Your task to perform on an android device: toggle notifications settings in the gmail app Image 0: 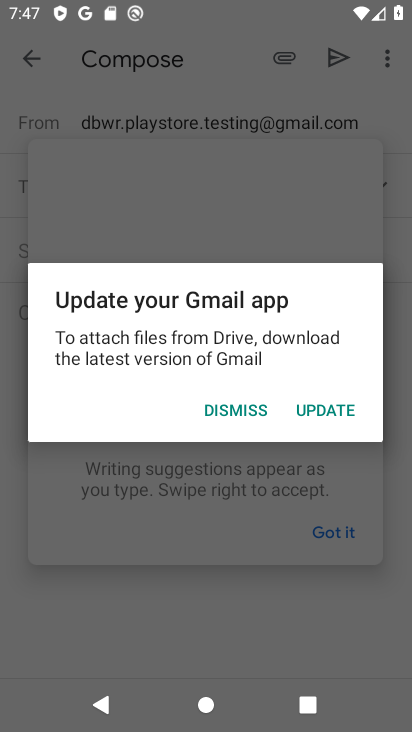
Step 0: press home button
Your task to perform on an android device: toggle notifications settings in the gmail app Image 1: 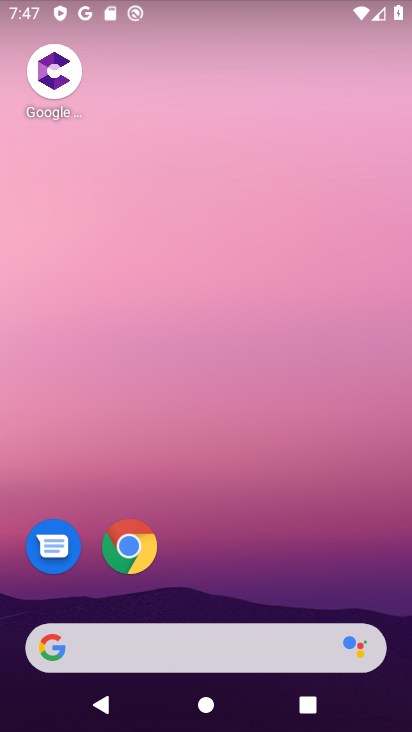
Step 1: drag from (289, 470) to (307, 199)
Your task to perform on an android device: toggle notifications settings in the gmail app Image 2: 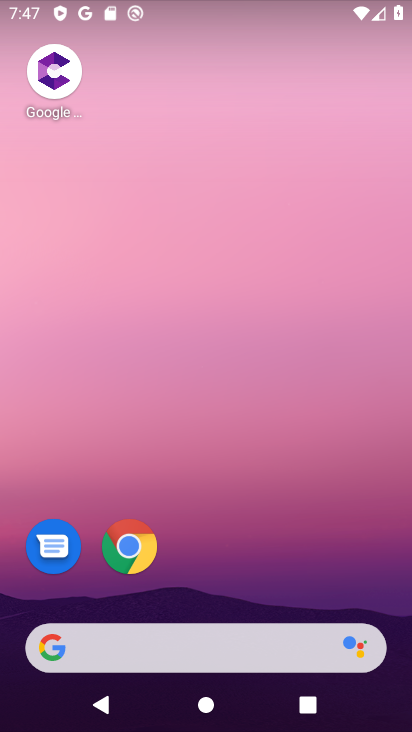
Step 2: drag from (256, 556) to (258, 141)
Your task to perform on an android device: toggle notifications settings in the gmail app Image 3: 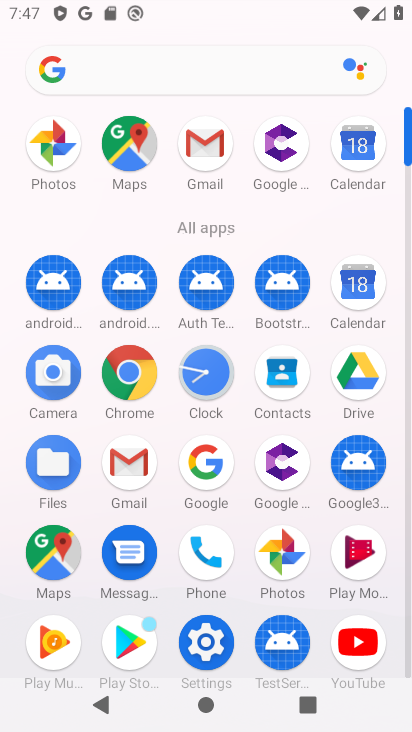
Step 3: click (125, 457)
Your task to perform on an android device: toggle notifications settings in the gmail app Image 4: 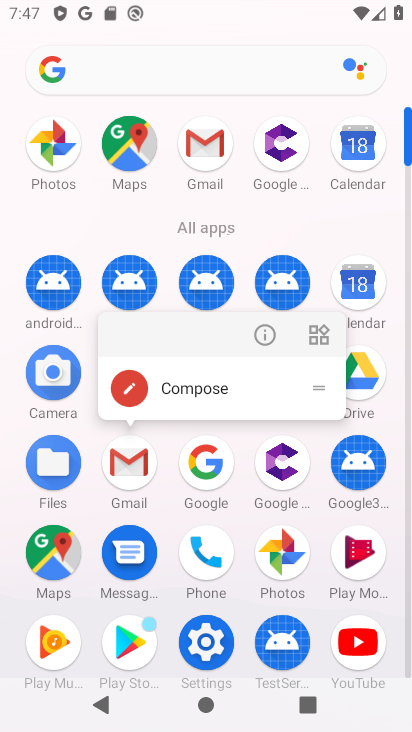
Step 4: click (129, 474)
Your task to perform on an android device: toggle notifications settings in the gmail app Image 5: 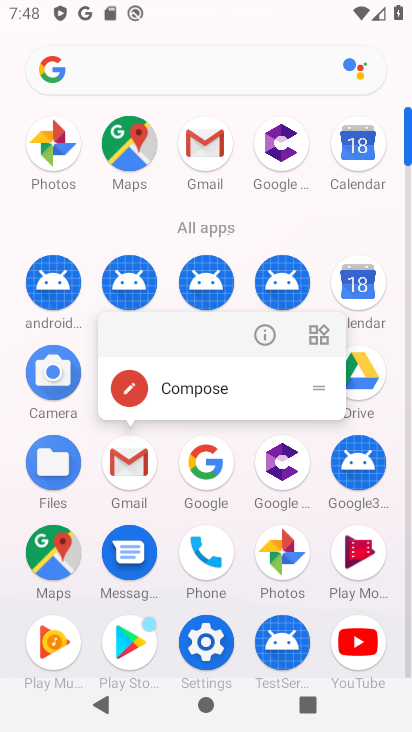
Step 5: click (141, 482)
Your task to perform on an android device: toggle notifications settings in the gmail app Image 6: 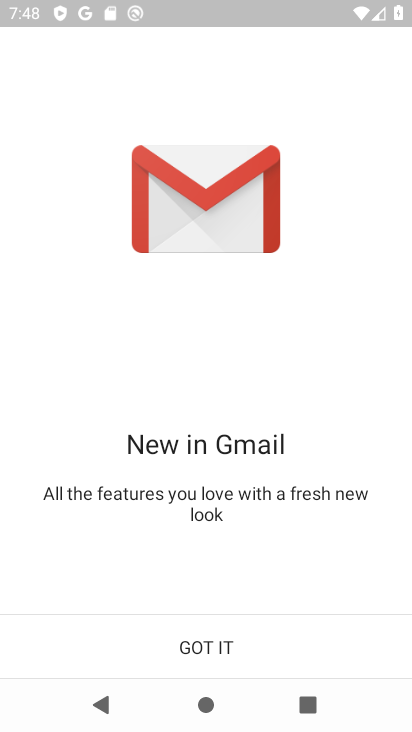
Step 6: click (212, 649)
Your task to perform on an android device: toggle notifications settings in the gmail app Image 7: 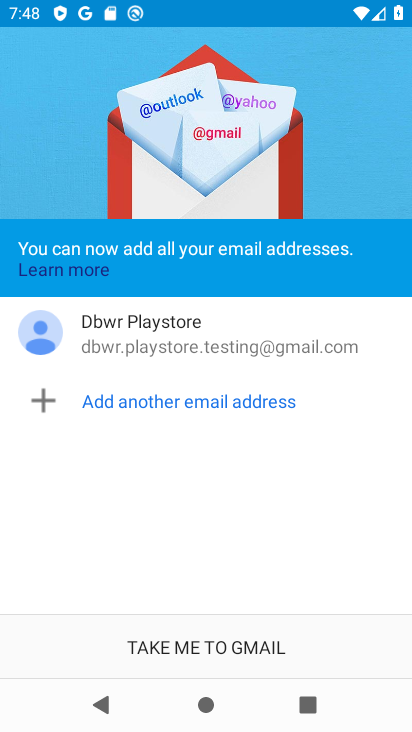
Step 7: click (226, 656)
Your task to perform on an android device: toggle notifications settings in the gmail app Image 8: 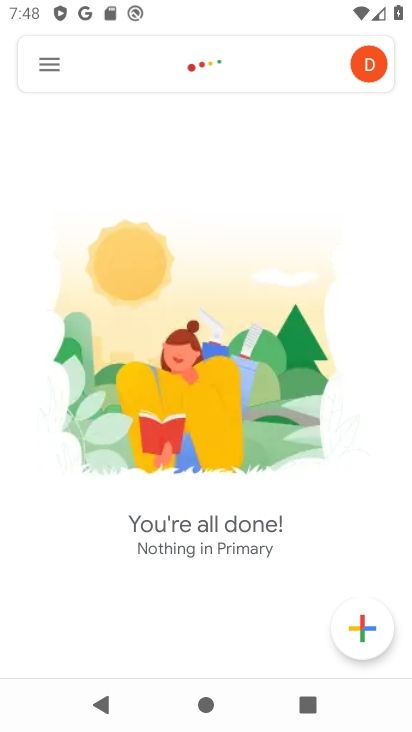
Step 8: click (49, 67)
Your task to perform on an android device: toggle notifications settings in the gmail app Image 9: 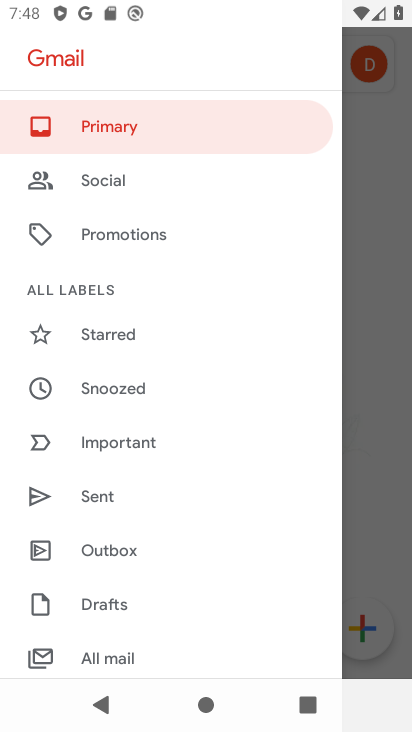
Step 9: drag from (128, 634) to (140, 189)
Your task to perform on an android device: toggle notifications settings in the gmail app Image 10: 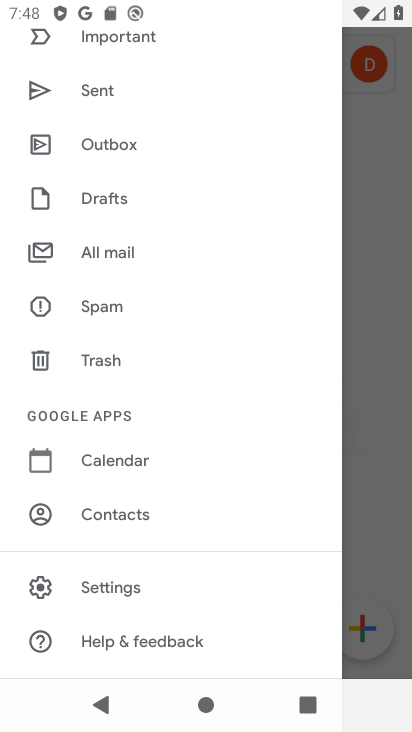
Step 10: click (112, 587)
Your task to perform on an android device: toggle notifications settings in the gmail app Image 11: 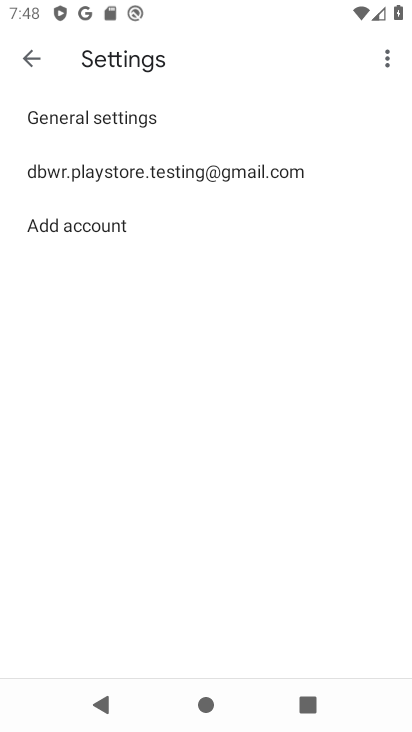
Step 11: click (141, 167)
Your task to perform on an android device: toggle notifications settings in the gmail app Image 12: 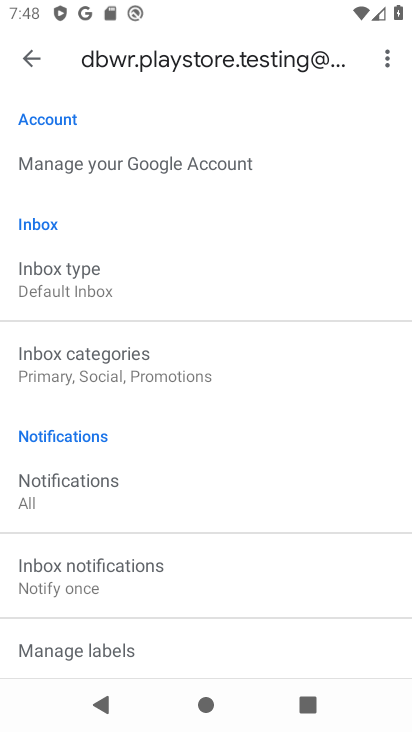
Step 12: click (100, 492)
Your task to perform on an android device: toggle notifications settings in the gmail app Image 13: 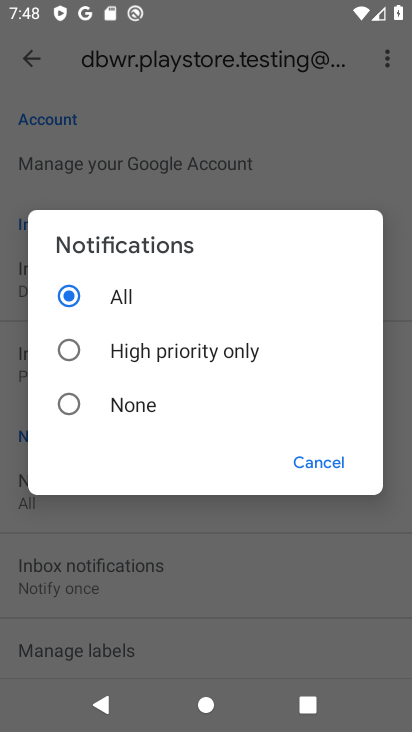
Step 13: click (155, 352)
Your task to perform on an android device: toggle notifications settings in the gmail app Image 14: 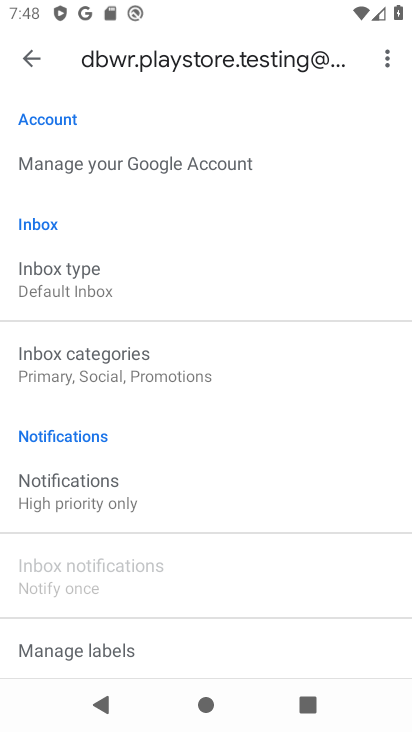
Step 14: task complete